Your task to perform on an android device: change the clock style Image 0: 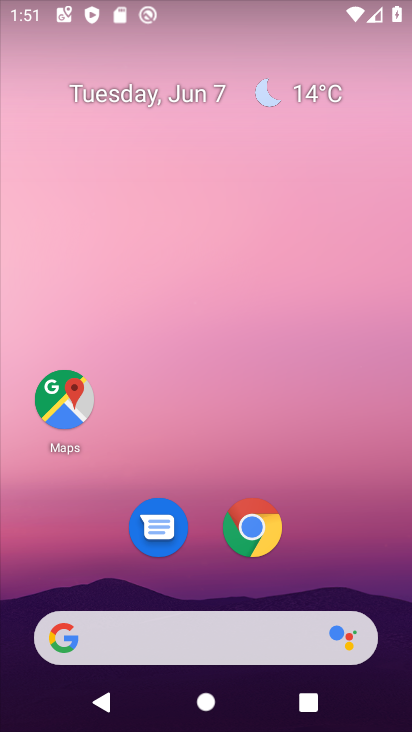
Step 0: drag from (378, 587) to (297, 198)
Your task to perform on an android device: change the clock style Image 1: 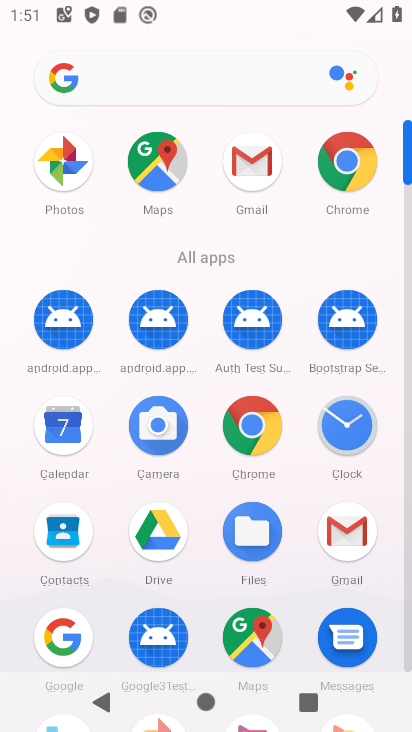
Step 1: click (370, 417)
Your task to perform on an android device: change the clock style Image 2: 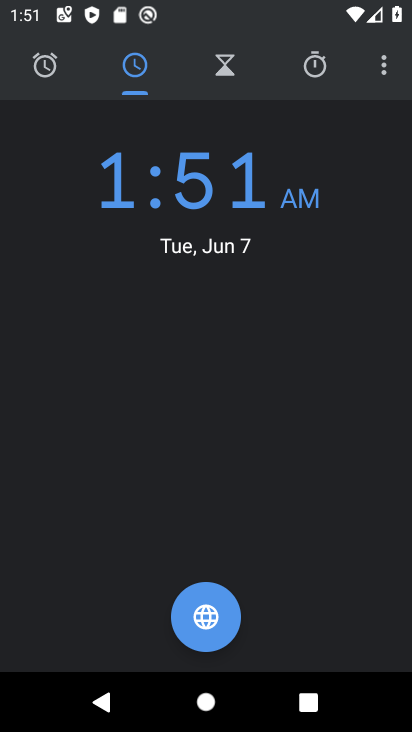
Step 2: click (387, 68)
Your task to perform on an android device: change the clock style Image 3: 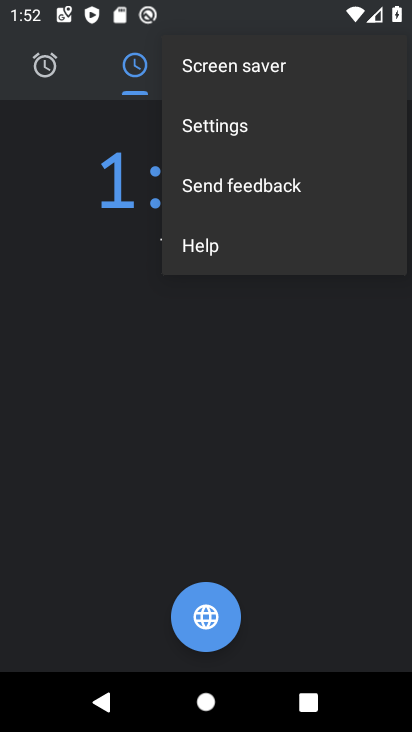
Step 3: click (263, 123)
Your task to perform on an android device: change the clock style Image 4: 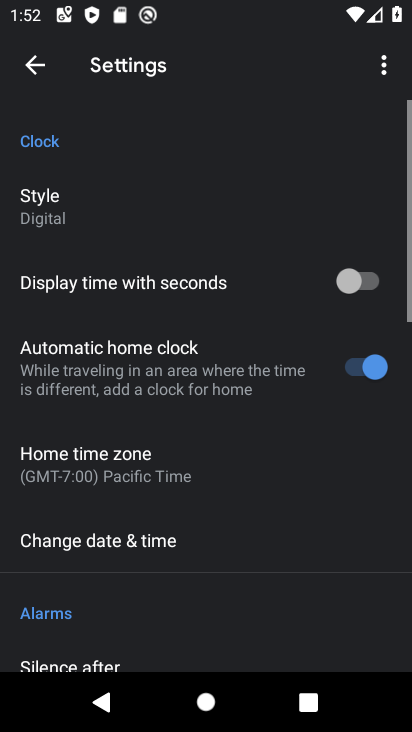
Step 4: click (158, 197)
Your task to perform on an android device: change the clock style Image 5: 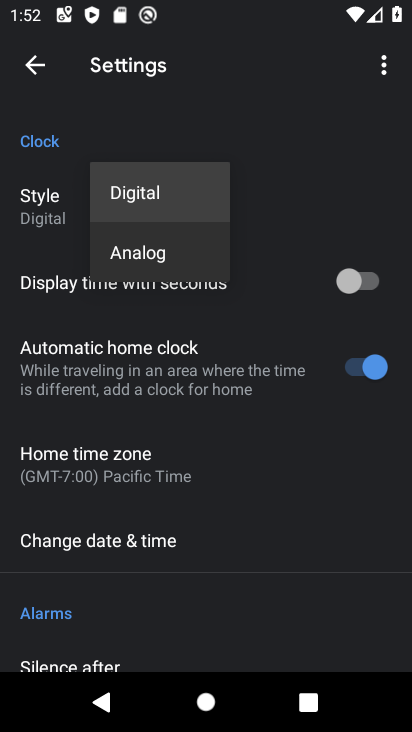
Step 5: click (169, 241)
Your task to perform on an android device: change the clock style Image 6: 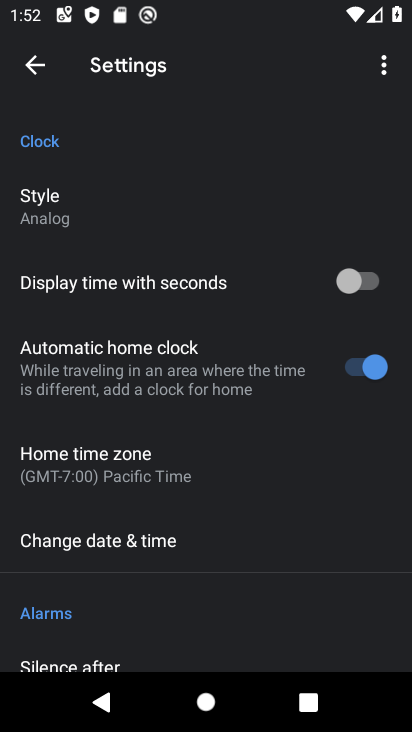
Step 6: task complete